Your task to perform on an android device: Open Google Maps and go to "Timeline" Image 0: 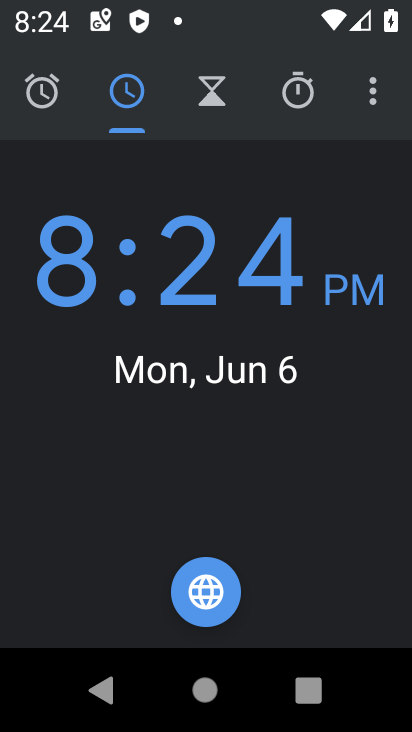
Step 0: press home button
Your task to perform on an android device: Open Google Maps and go to "Timeline" Image 1: 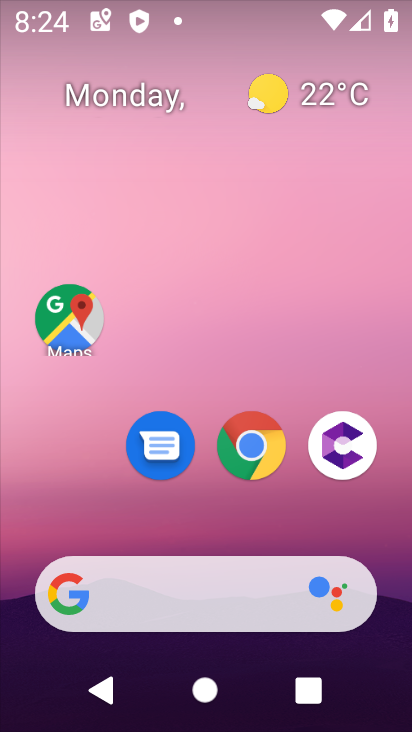
Step 1: click (85, 326)
Your task to perform on an android device: Open Google Maps and go to "Timeline" Image 2: 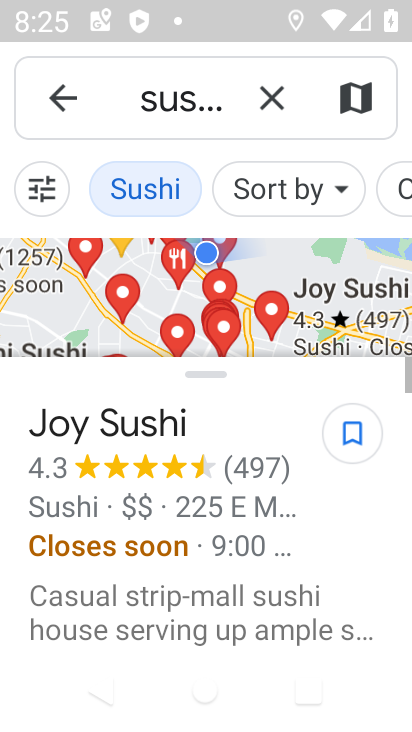
Step 2: click (277, 96)
Your task to perform on an android device: Open Google Maps and go to "Timeline" Image 3: 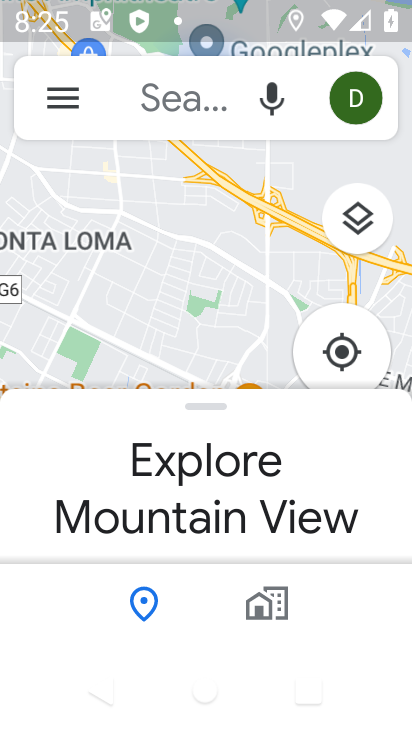
Step 3: click (55, 91)
Your task to perform on an android device: Open Google Maps and go to "Timeline" Image 4: 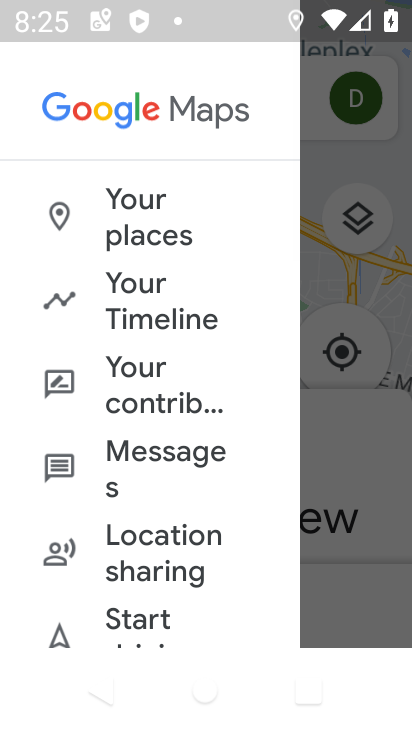
Step 4: click (155, 301)
Your task to perform on an android device: Open Google Maps and go to "Timeline" Image 5: 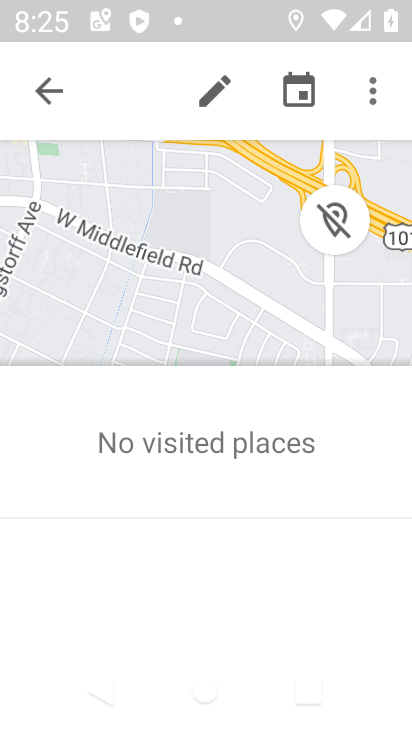
Step 5: task complete